Your task to perform on an android device: move an email to a new category in the gmail app Image 0: 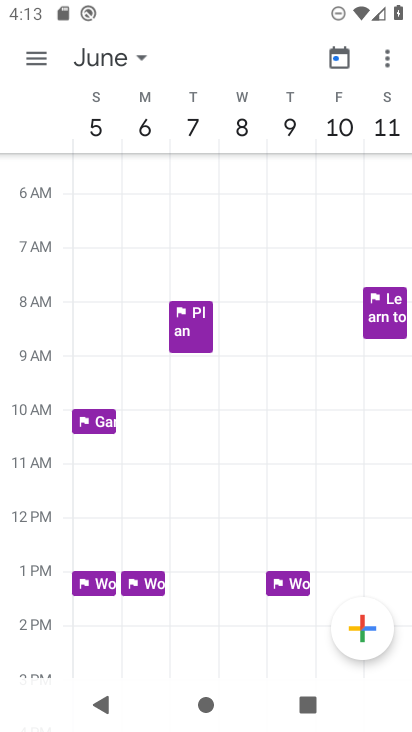
Step 0: press home button
Your task to perform on an android device: move an email to a new category in the gmail app Image 1: 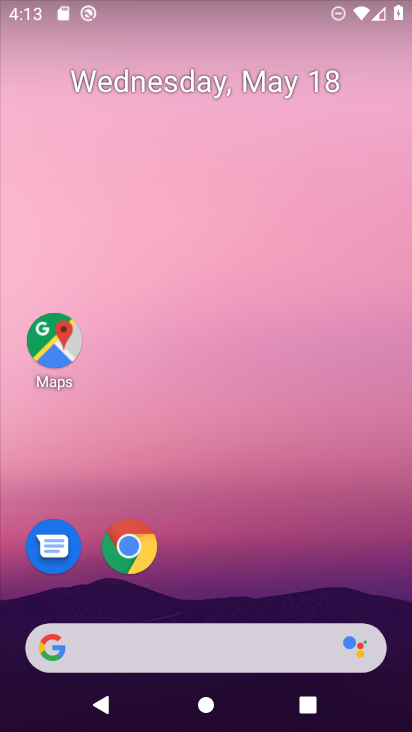
Step 1: drag from (232, 606) to (245, 196)
Your task to perform on an android device: move an email to a new category in the gmail app Image 2: 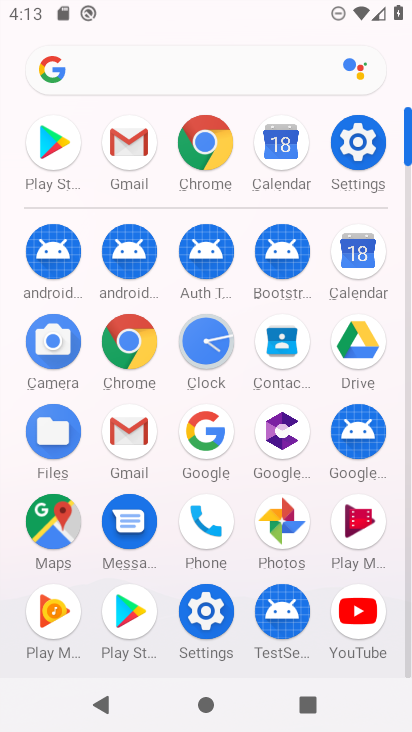
Step 2: click (138, 448)
Your task to perform on an android device: move an email to a new category in the gmail app Image 3: 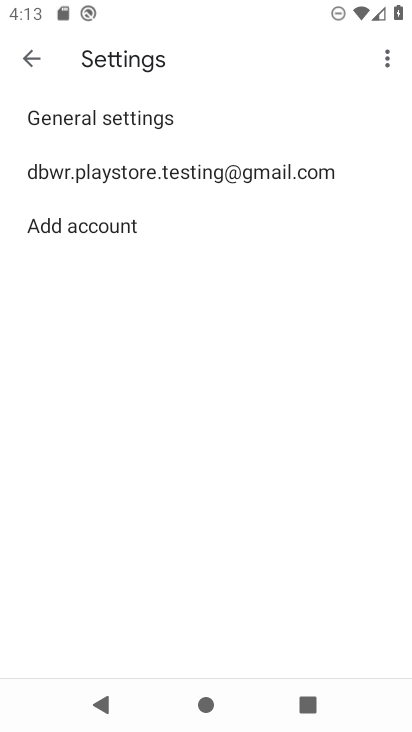
Step 3: click (28, 60)
Your task to perform on an android device: move an email to a new category in the gmail app Image 4: 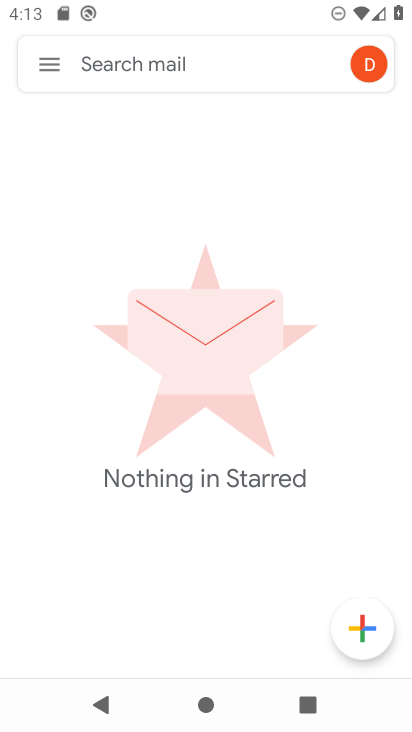
Step 4: click (50, 63)
Your task to perform on an android device: move an email to a new category in the gmail app Image 5: 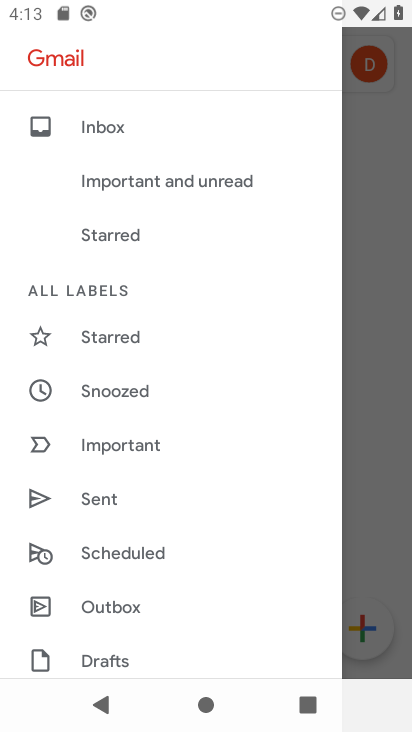
Step 5: drag from (118, 541) to (143, 371)
Your task to perform on an android device: move an email to a new category in the gmail app Image 6: 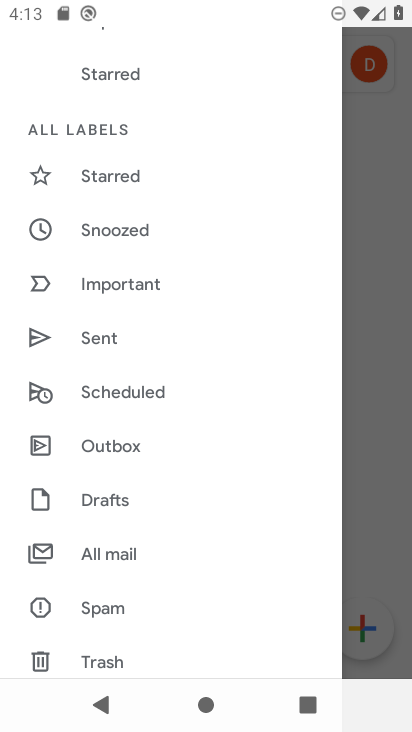
Step 6: click (114, 559)
Your task to perform on an android device: move an email to a new category in the gmail app Image 7: 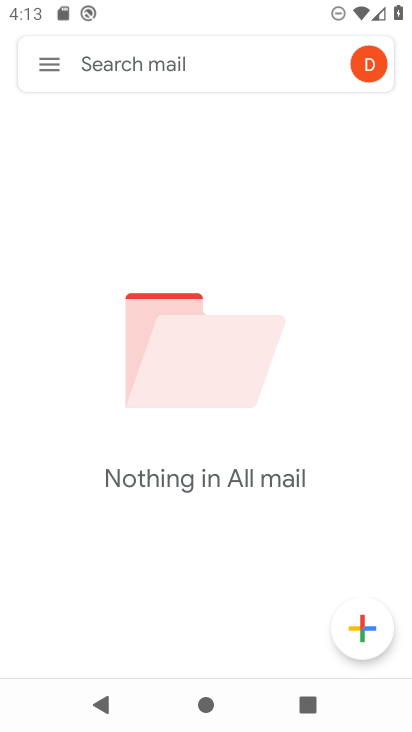
Step 7: task complete